Your task to perform on an android device: open chrome and create a bookmark for the current page Image 0: 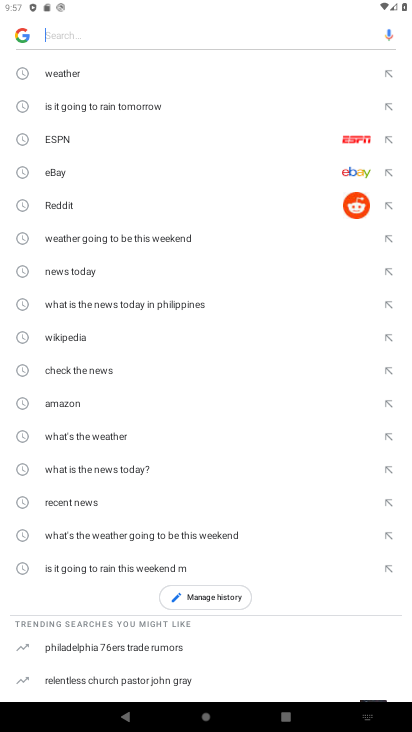
Step 0: press back button
Your task to perform on an android device: open chrome and create a bookmark for the current page Image 1: 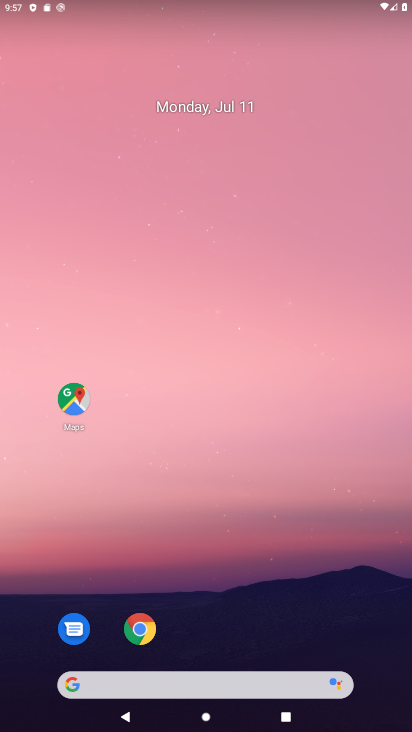
Step 1: click (159, 627)
Your task to perform on an android device: open chrome and create a bookmark for the current page Image 2: 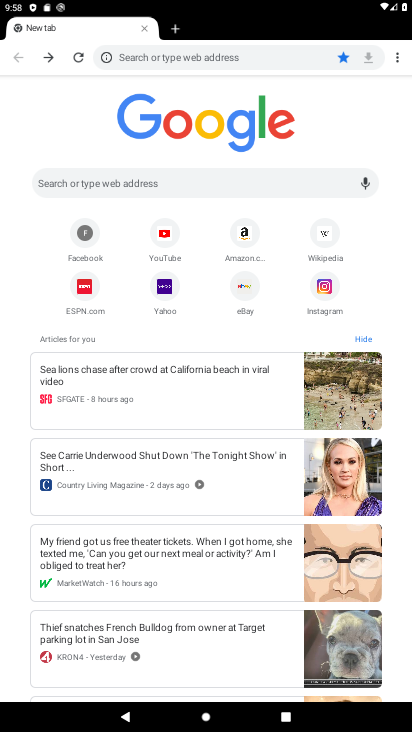
Step 2: click (159, 237)
Your task to perform on an android device: open chrome and create a bookmark for the current page Image 3: 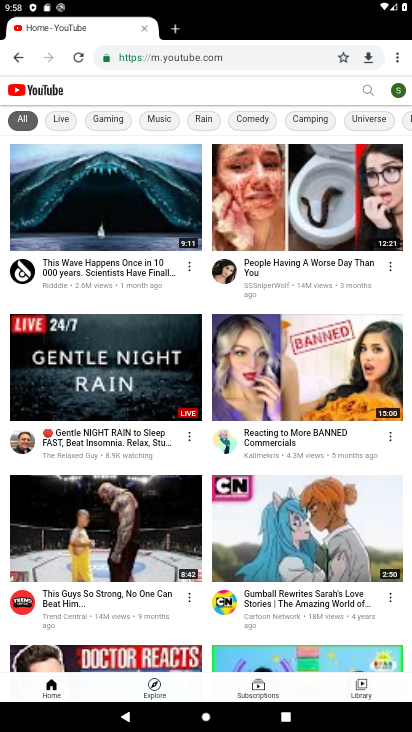
Step 3: click (341, 62)
Your task to perform on an android device: open chrome and create a bookmark for the current page Image 4: 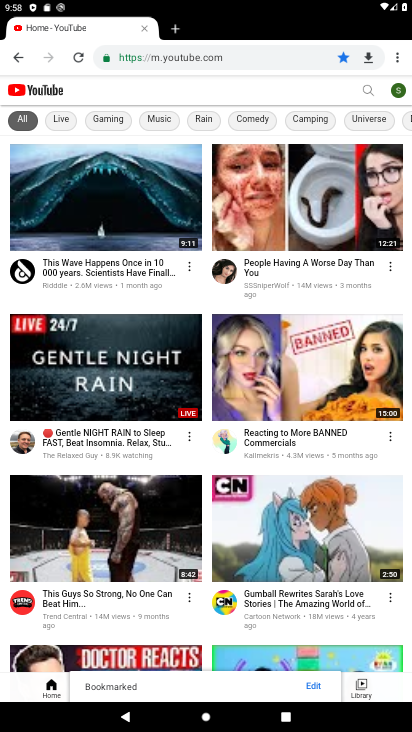
Step 4: task complete